Your task to perform on an android device: open a new tab in the chrome app Image 0: 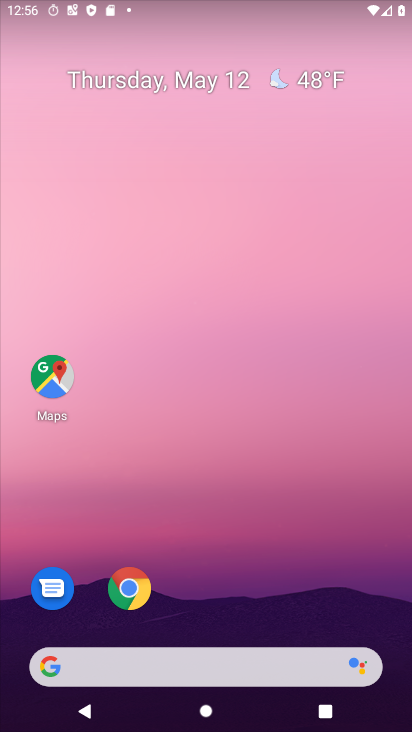
Step 0: click (131, 588)
Your task to perform on an android device: open a new tab in the chrome app Image 1: 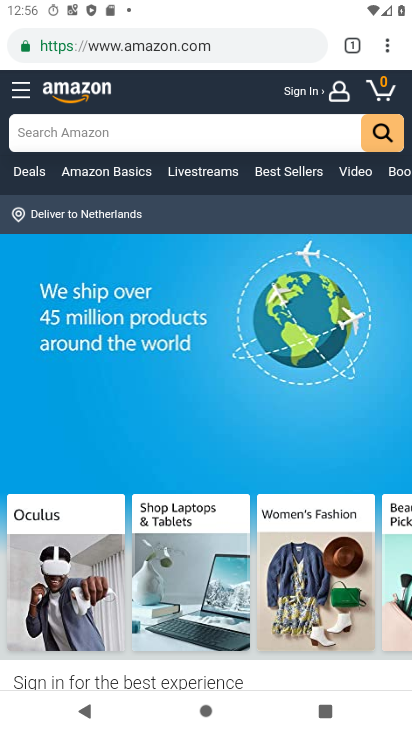
Step 1: click (350, 42)
Your task to perform on an android device: open a new tab in the chrome app Image 2: 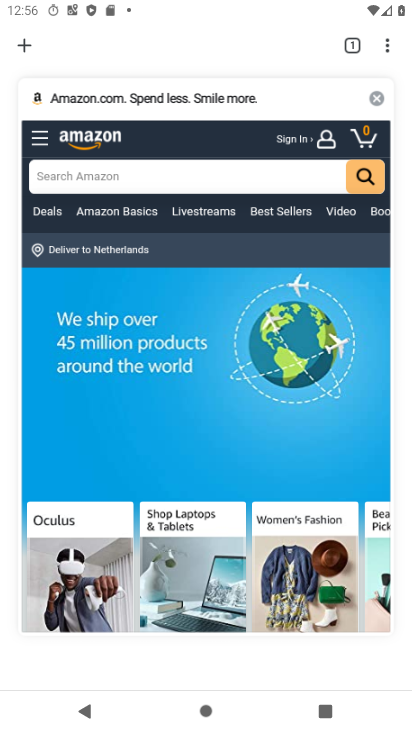
Step 2: click (33, 52)
Your task to perform on an android device: open a new tab in the chrome app Image 3: 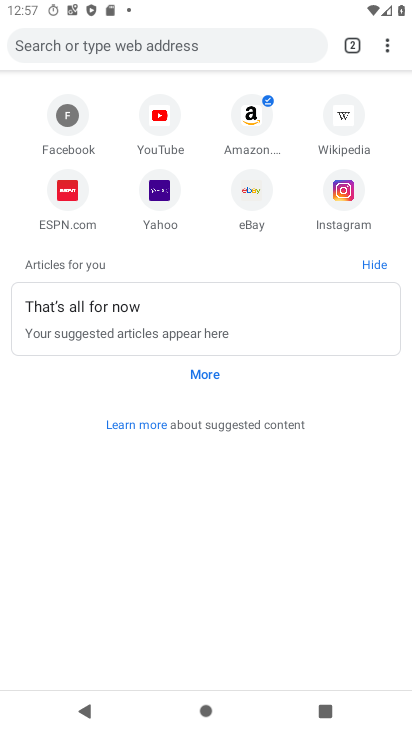
Step 3: task complete